Your task to perform on an android device: Search for sushi restaurants on Maps Image 0: 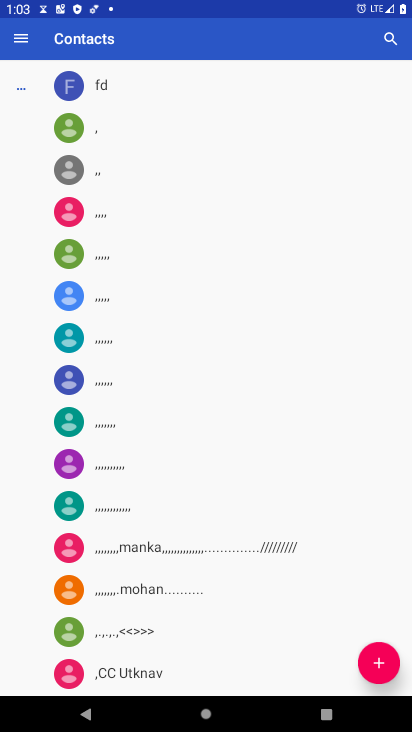
Step 0: press home button
Your task to perform on an android device: Search for sushi restaurants on Maps Image 1: 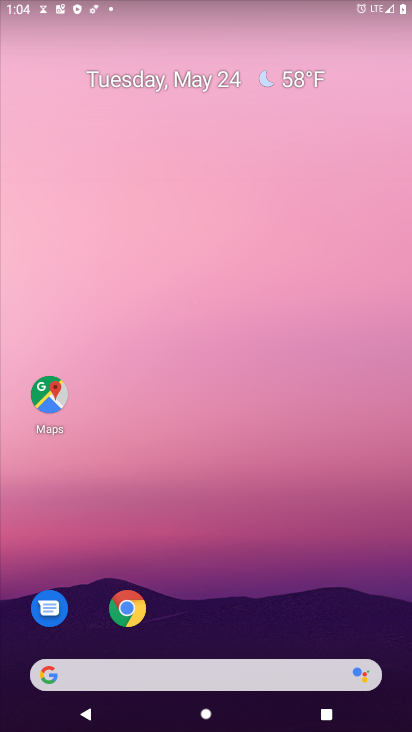
Step 1: drag from (308, 707) to (243, 262)
Your task to perform on an android device: Search for sushi restaurants on Maps Image 2: 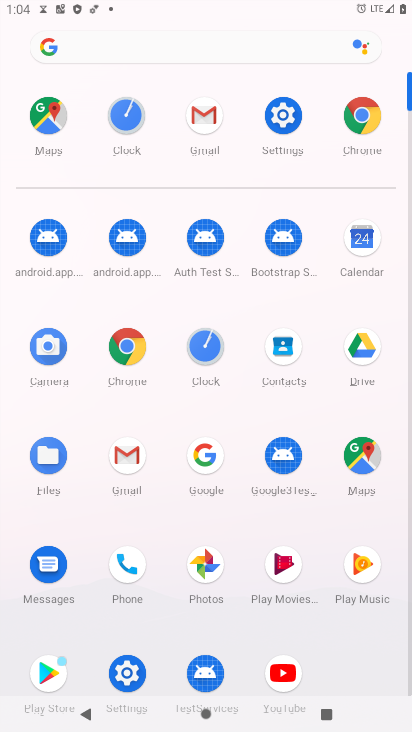
Step 2: click (363, 447)
Your task to perform on an android device: Search for sushi restaurants on Maps Image 3: 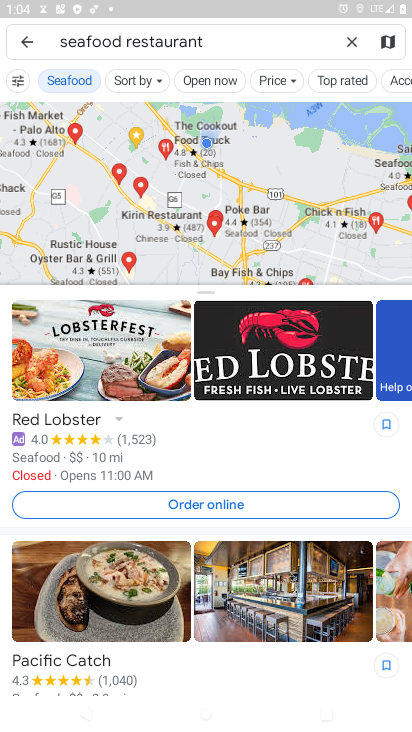
Step 3: click (357, 41)
Your task to perform on an android device: Search for sushi restaurants on Maps Image 4: 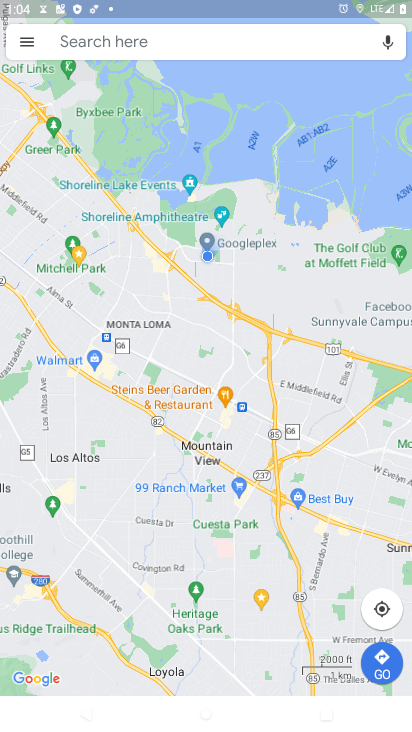
Step 4: click (151, 37)
Your task to perform on an android device: Search for sushi restaurants on Maps Image 5: 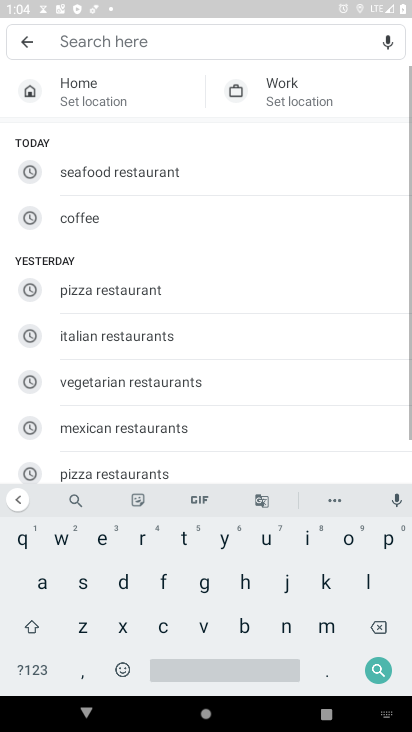
Step 5: click (83, 581)
Your task to perform on an android device: Search for sushi restaurants on Maps Image 6: 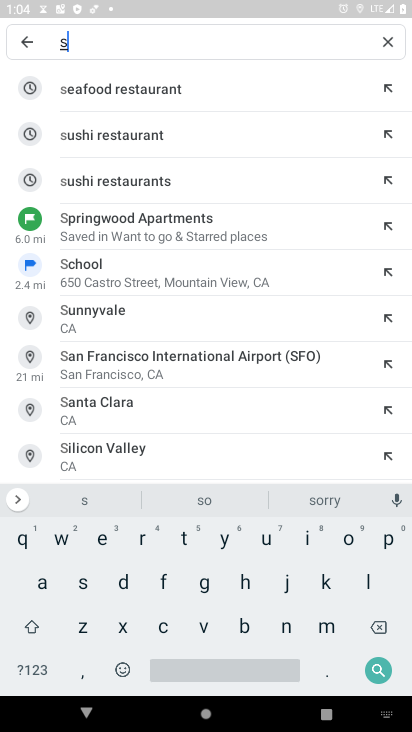
Step 6: click (141, 121)
Your task to perform on an android device: Search for sushi restaurants on Maps Image 7: 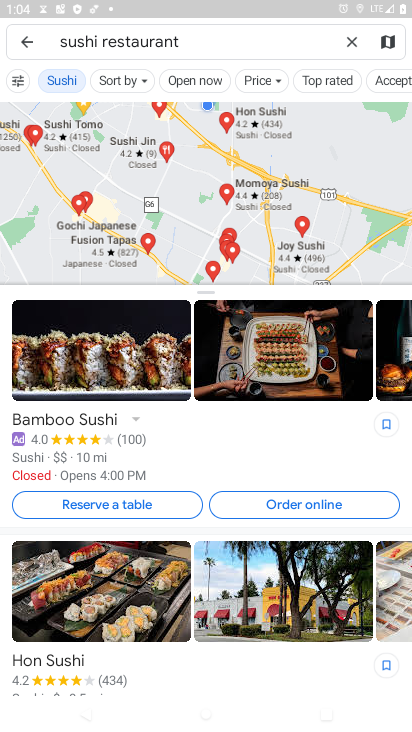
Step 7: task complete